Your task to perform on an android device: Open battery settings Image 0: 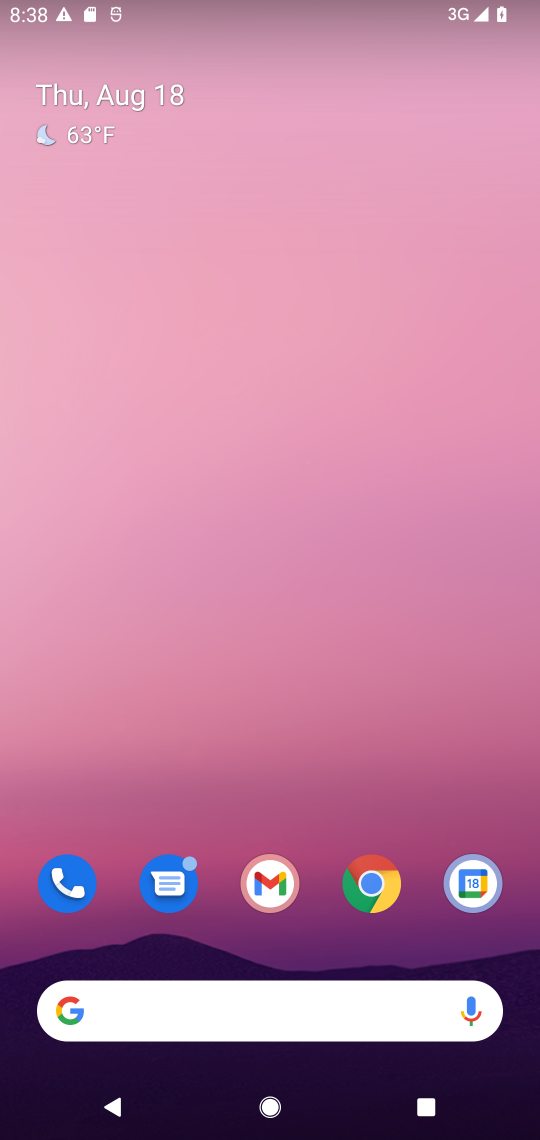
Step 0: drag from (35, 1089) to (323, 469)
Your task to perform on an android device: Open battery settings Image 1: 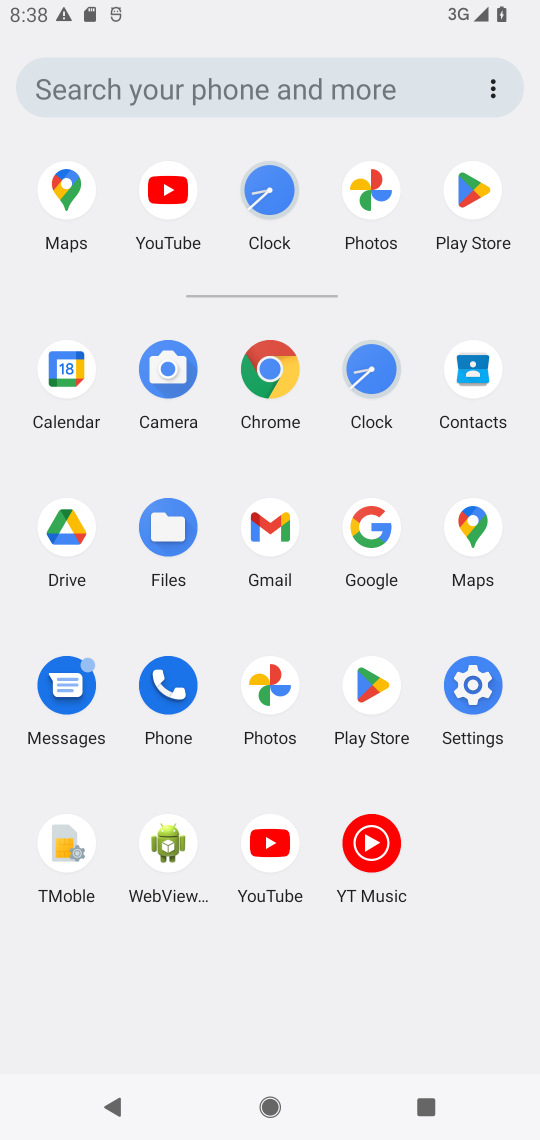
Step 1: click (473, 715)
Your task to perform on an android device: Open battery settings Image 2: 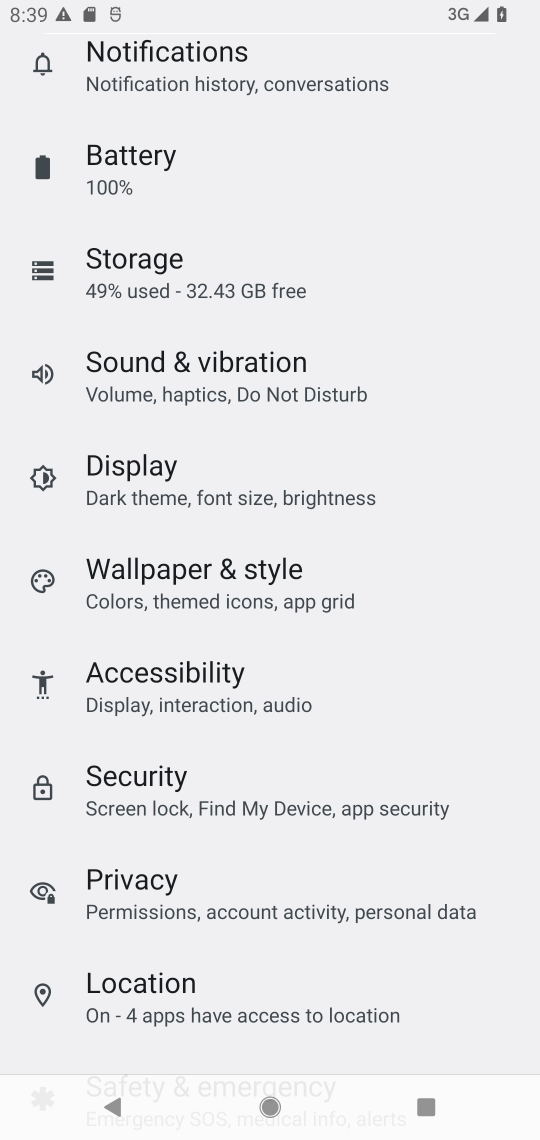
Step 2: click (114, 158)
Your task to perform on an android device: Open battery settings Image 3: 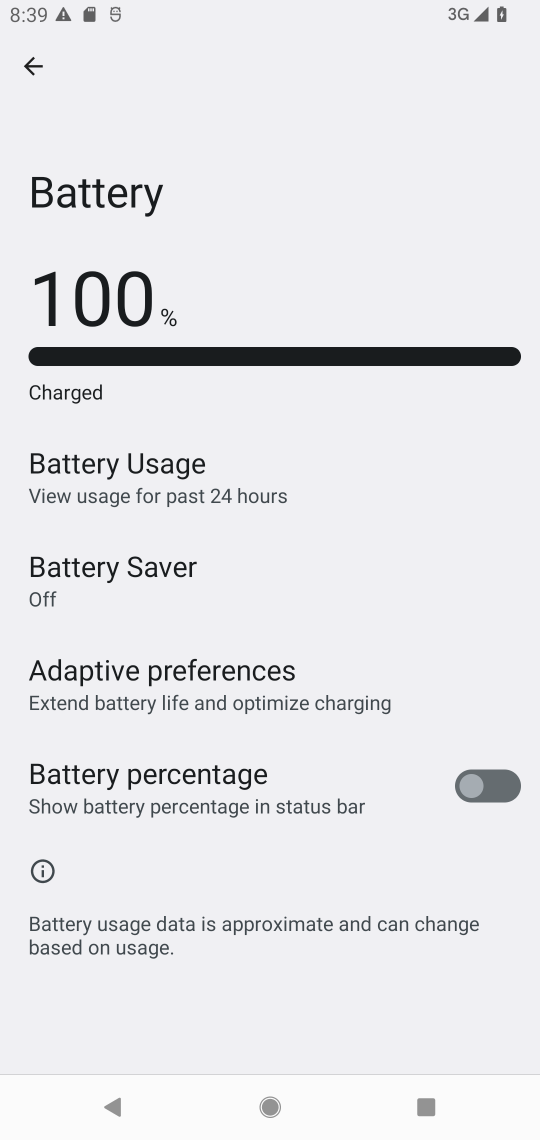
Step 3: task complete